Your task to perform on an android device: Open Google Maps and go to "Timeline" Image 0: 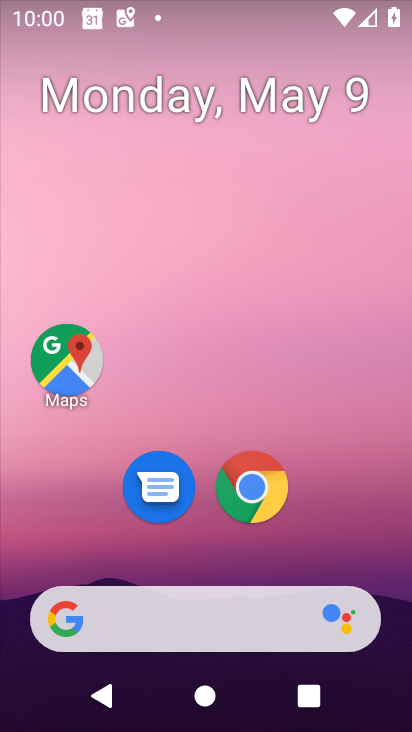
Step 0: drag from (367, 566) to (255, 0)
Your task to perform on an android device: Open Google Maps and go to "Timeline" Image 1: 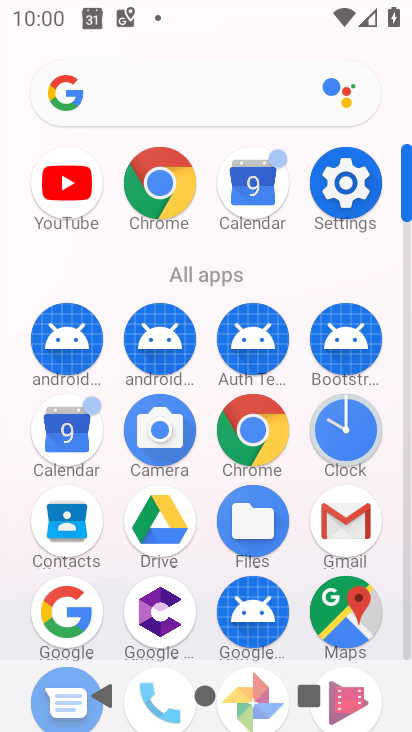
Step 1: click (345, 610)
Your task to perform on an android device: Open Google Maps and go to "Timeline" Image 2: 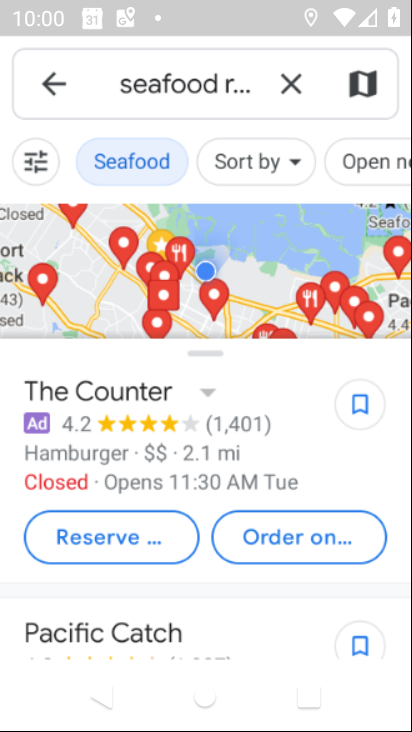
Step 2: click (60, 76)
Your task to perform on an android device: Open Google Maps and go to "Timeline" Image 3: 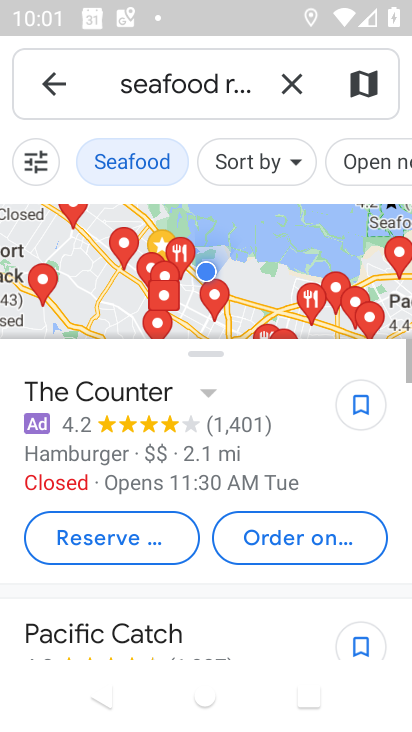
Step 3: click (50, 83)
Your task to perform on an android device: Open Google Maps and go to "Timeline" Image 4: 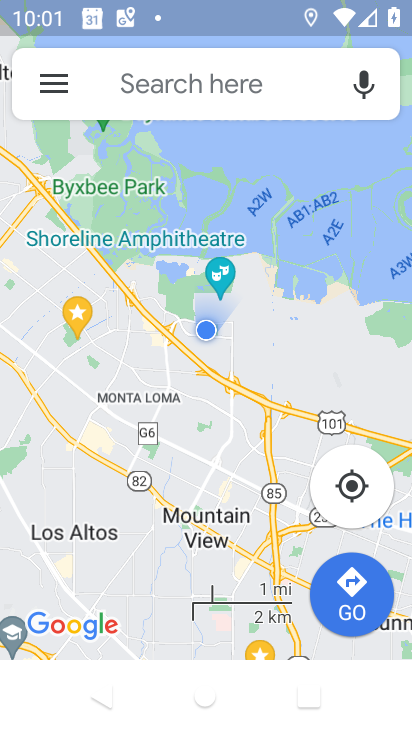
Step 4: click (50, 83)
Your task to perform on an android device: Open Google Maps and go to "Timeline" Image 5: 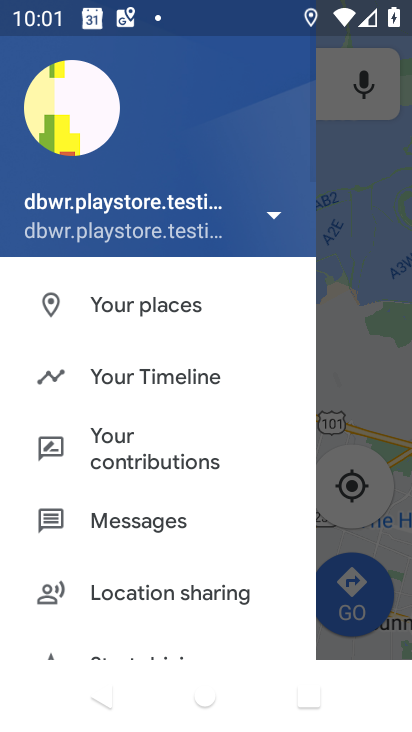
Step 5: click (182, 373)
Your task to perform on an android device: Open Google Maps and go to "Timeline" Image 6: 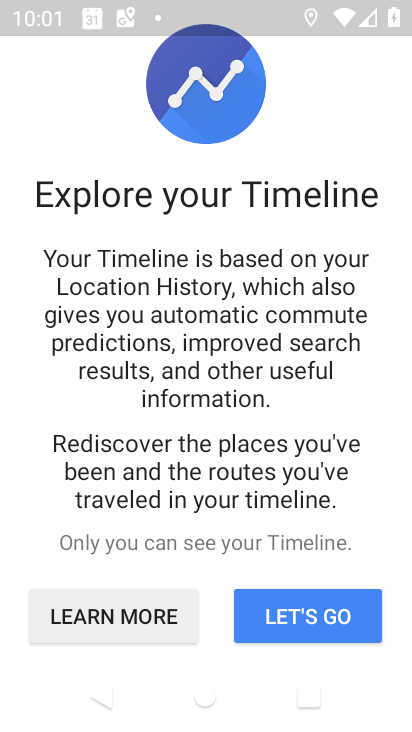
Step 6: click (317, 620)
Your task to perform on an android device: Open Google Maps and go to "Timeline" Image 7: 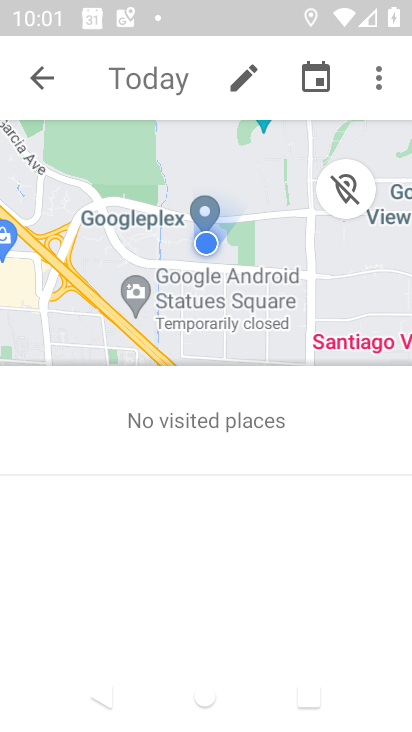
Step 7: task complete